Your task to perform on an android device: What is the recent news? Image 0: 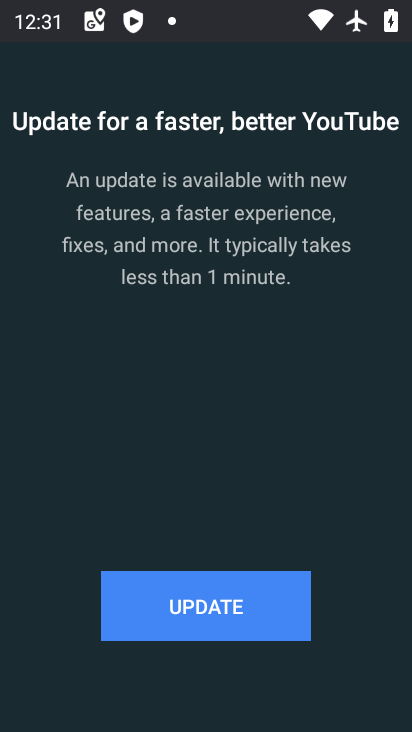
Step 0: press home button
Your task to perform on an android device: What is the recent news? Image 1: 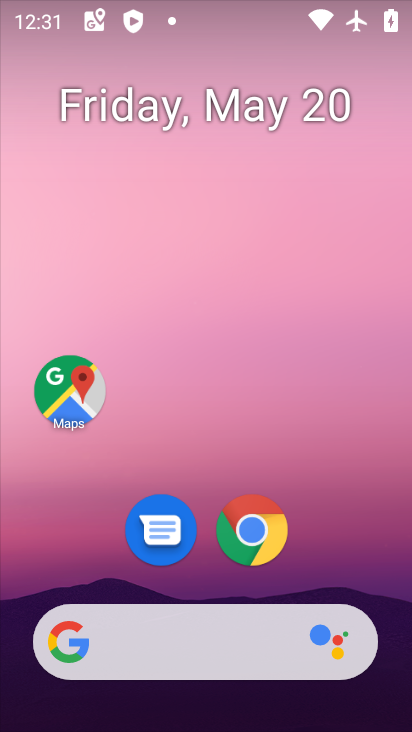
Step 1: click (186, 654)
Your task to perform on an android device: What is the recent news? Image 2: 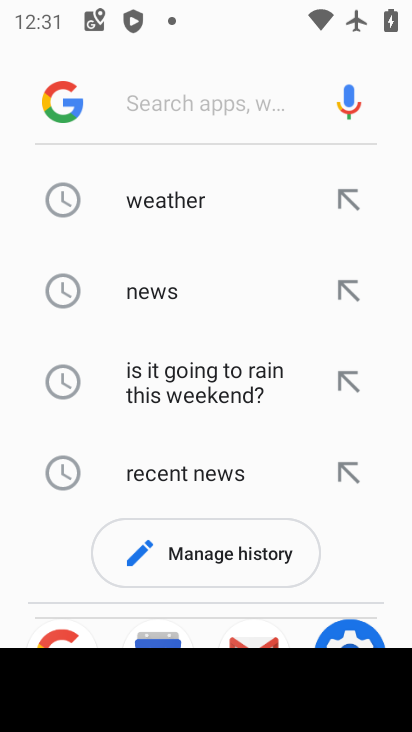
Step 2: click (200, 485)
Your task to perform on an android device: What is the recent news? Image 3: 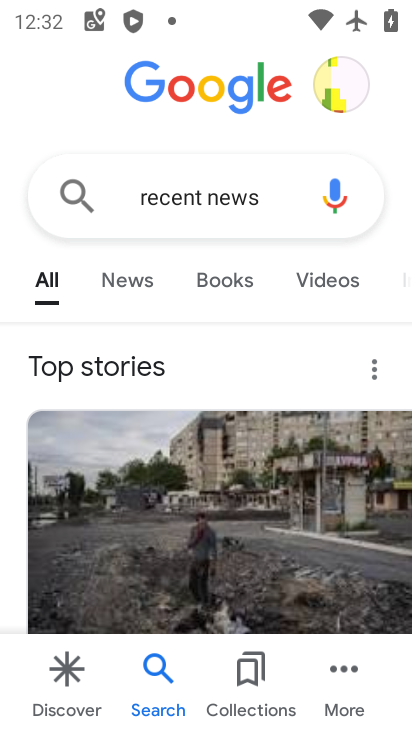
Step 3: task complete